Your task to perform on an android device: Open Yahoo.com Image 0: 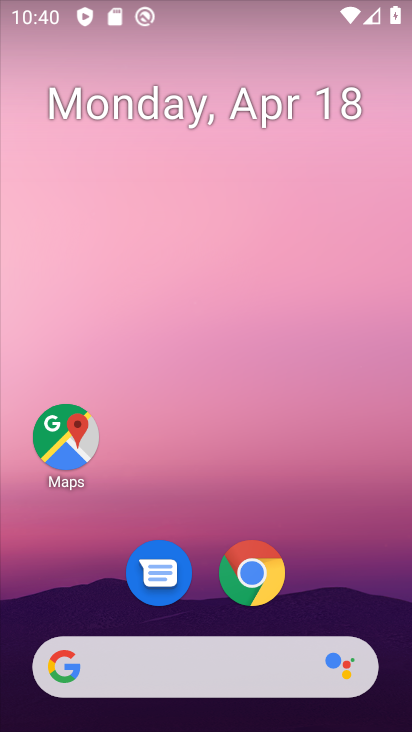
Step 0: click (253, 582)
Your task to perform on an android device: Open Yahoo.com Image 1: 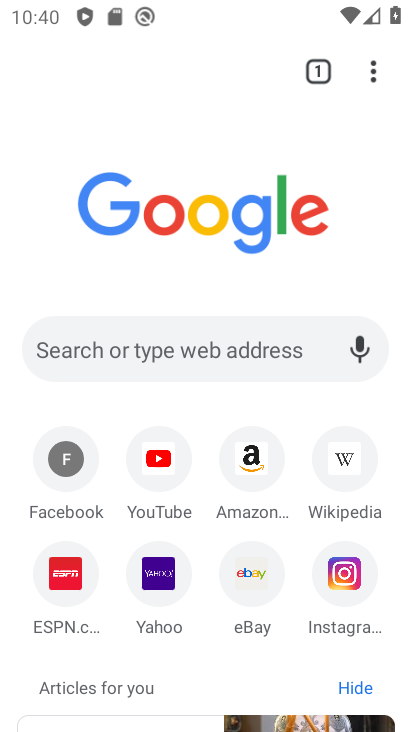
Step 1: click (159, 587)
Your task to perform on an android device: Open Yahoo.com Image 2: 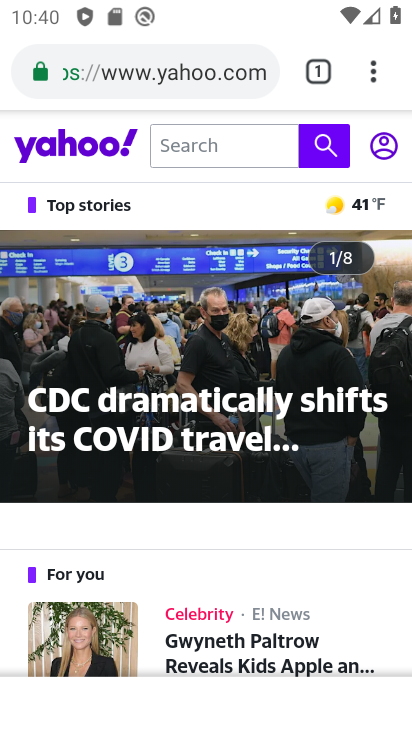
Step 2: task complete